Your task to perform on an android device: Add "energizer triple a" to the cart on amazon Image 0: 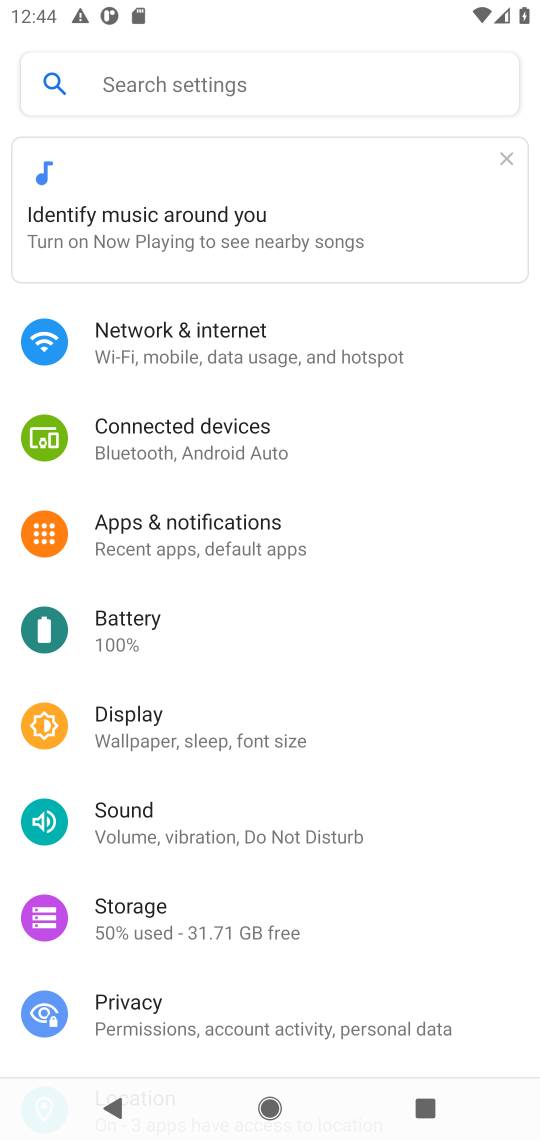
Step 0: press home button
Your task to perform on an android device: Add "energizer triple a" to the cart on amazon Image 1: 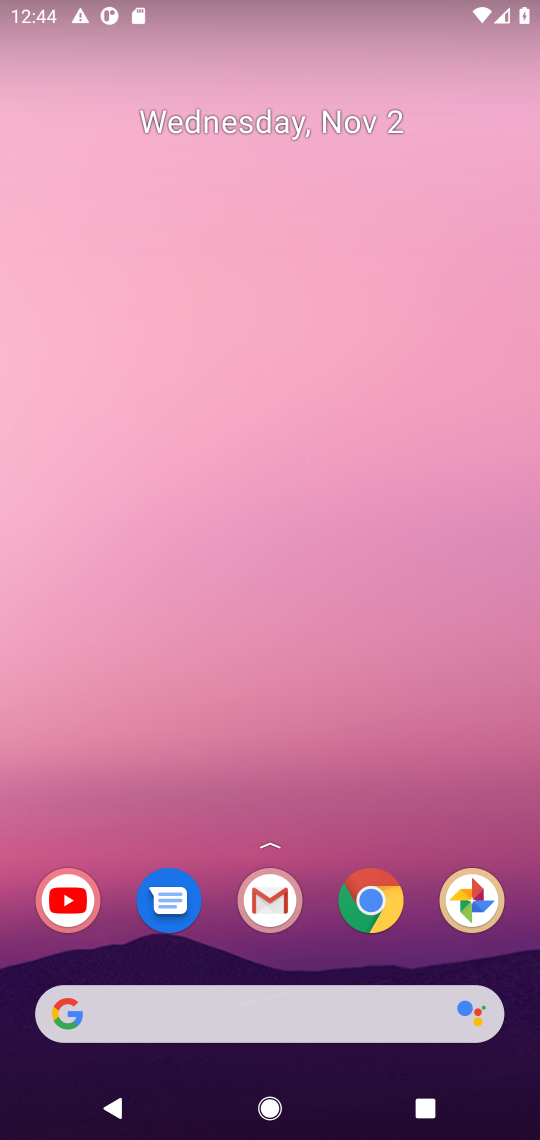
Step 1: click (358, 902)
Your task to perform on an android device: Add "energizer triple a" to the cart on amazon Image 2: 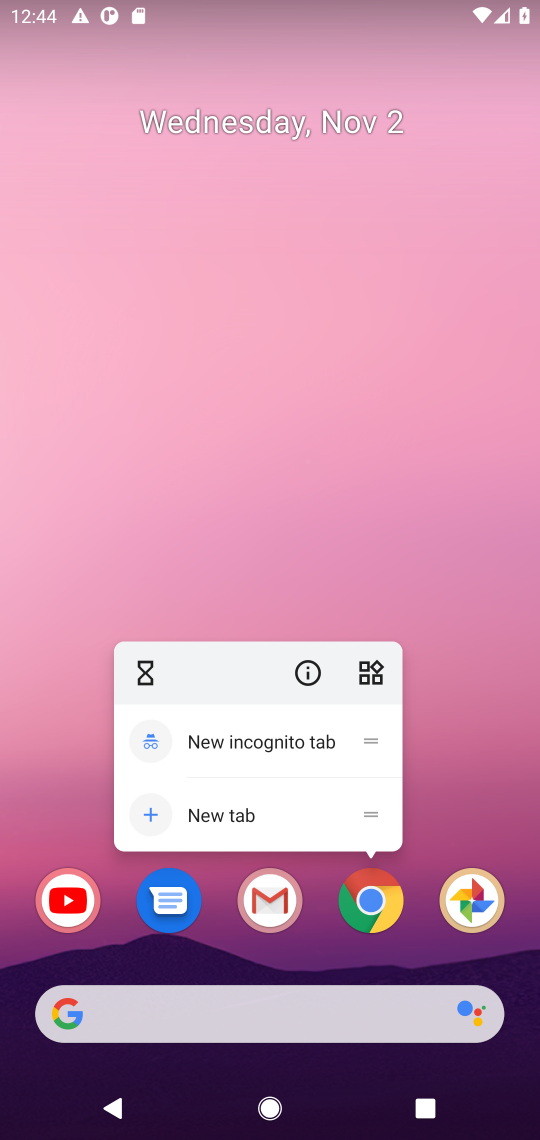
Step 2: click (381, 902)
Your task to perform on an android device: Add "energizer triple a" to the cart on amazon Image 3: 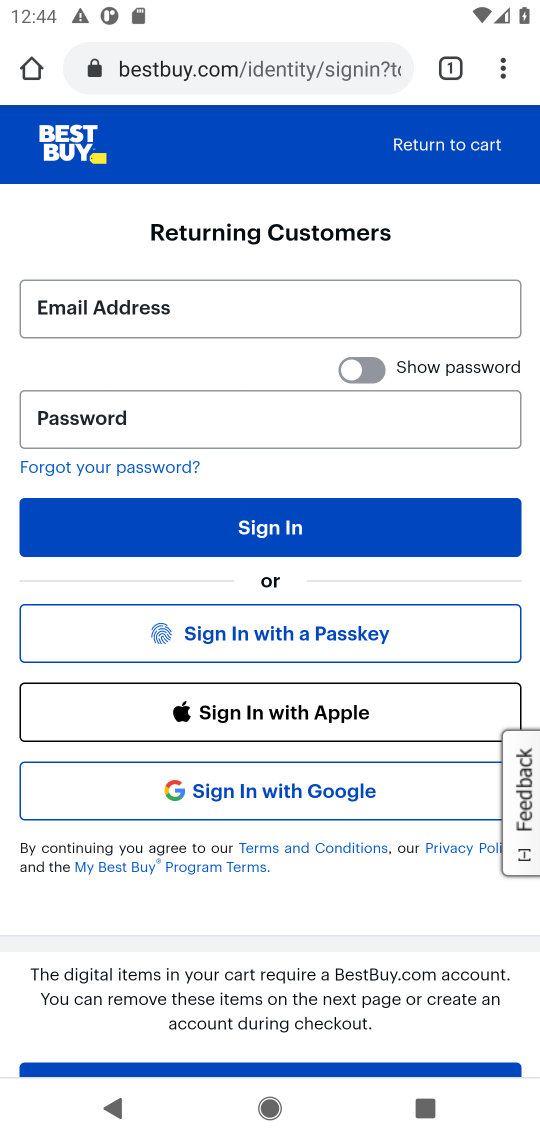
Step 3: click (178, 65)
Your task to perform on an android device: Add "energizer triple a" to the cart on amazon Image 4: 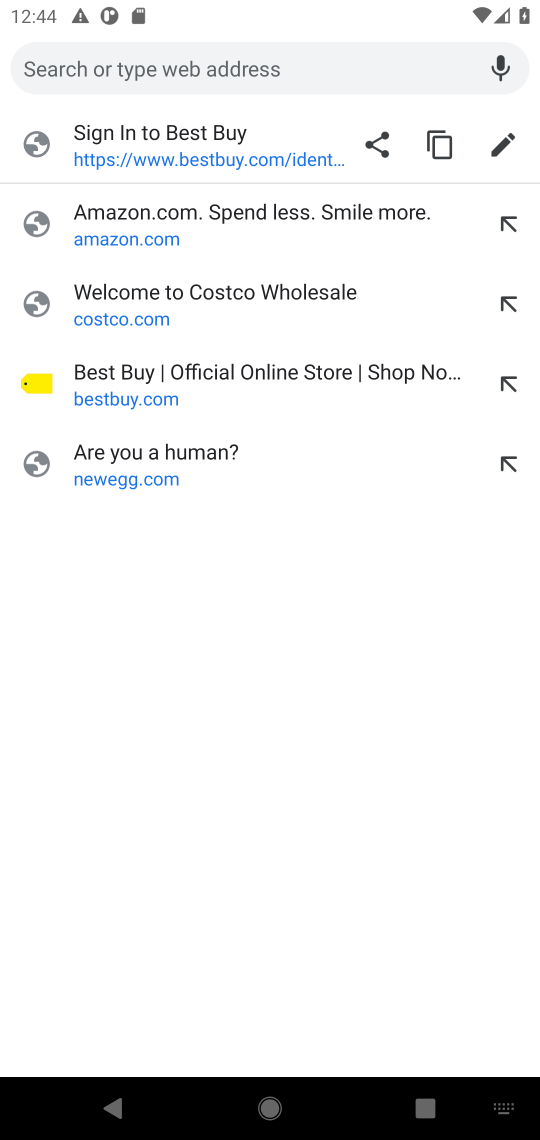
Step 4: click (118, 212)
Your task to perform on an android device: Add "energizer triple a" to the cart on amazon Image 5: 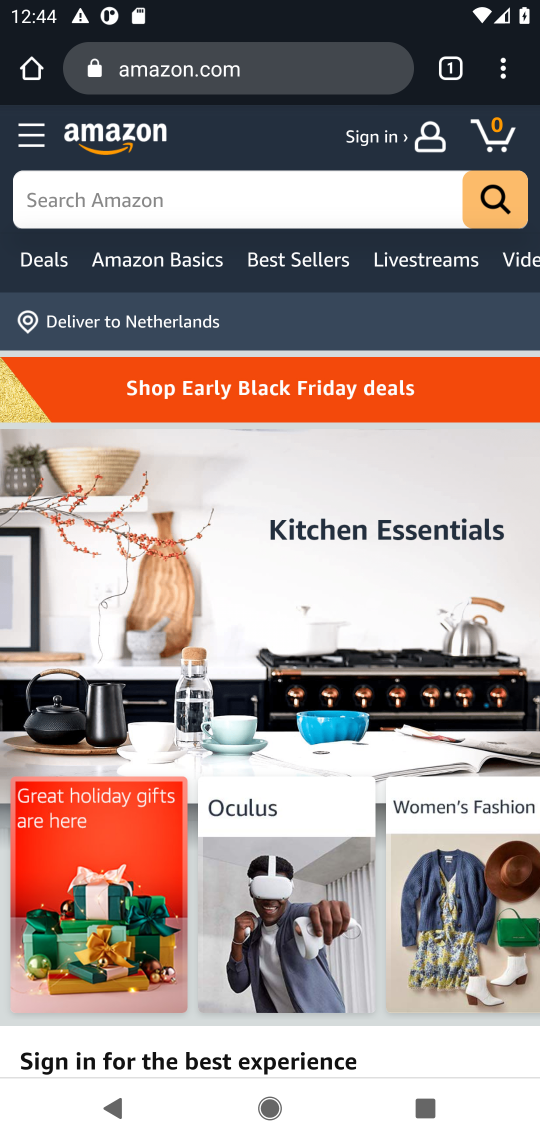
Step 5: click (278, 209)
Your task to perform on an android device: Add "energizer triple a" to the cart on amazon Image 6: 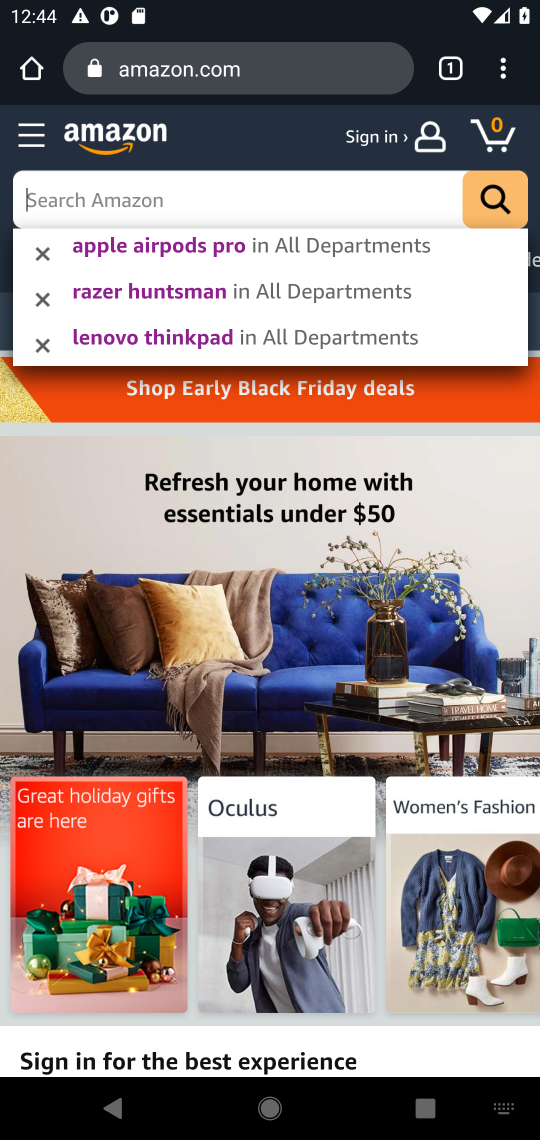
Step 6: type "nergizer triple a"
Your task to perform on an android device: Add "energizer triple a" to the cart on amazon Image 7: 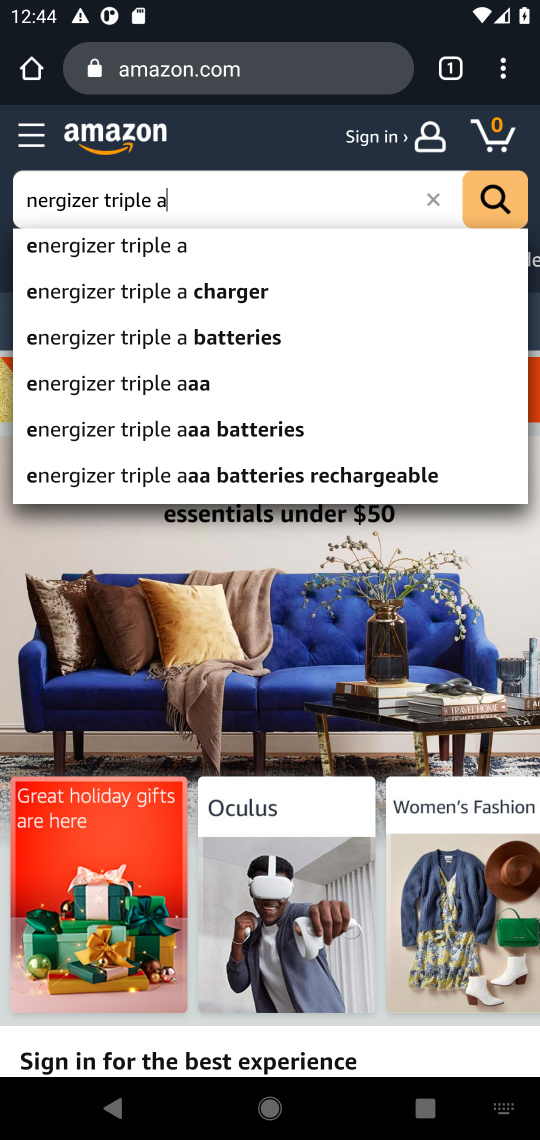
Step 7: type ""
Your task to perform on an android device: Add "energizer triple a" to the cart on amazon Image 8: 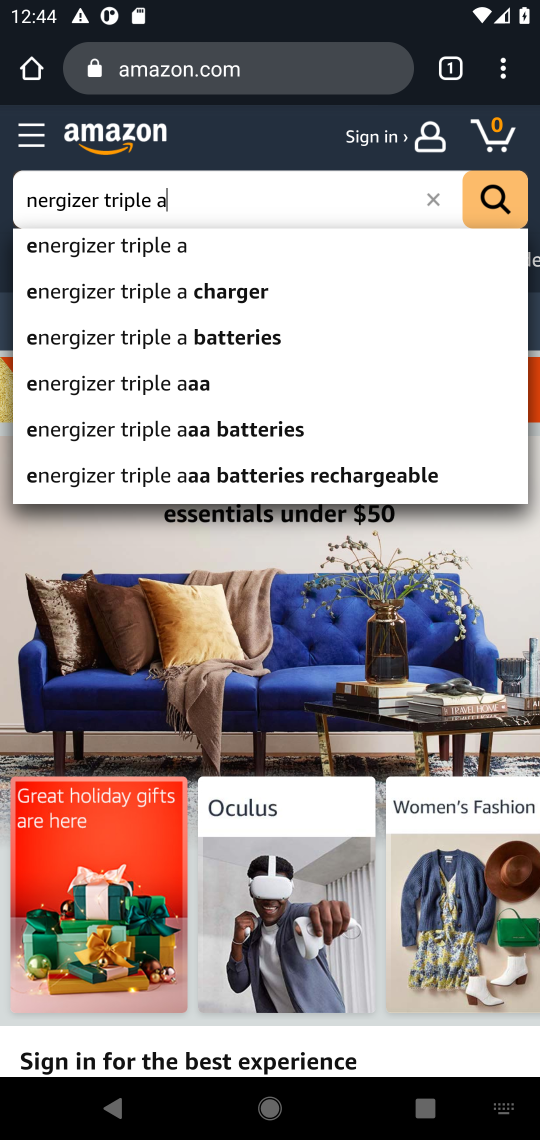
Step 8: click (484, 193)
Your task to perform on an android device: Add "energizer triple a" to the cart on amazon Image 9: 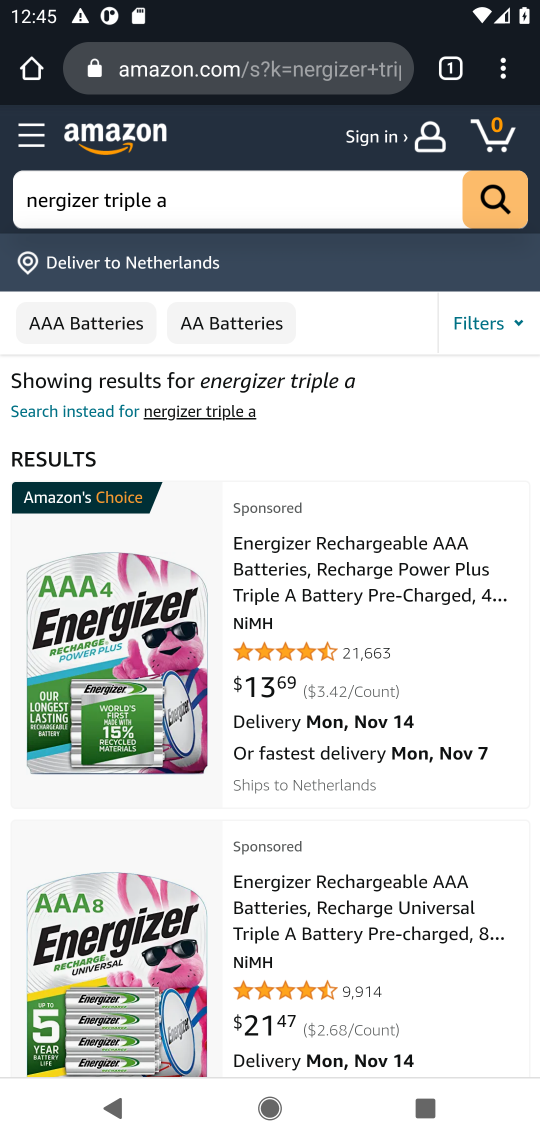
Step 9: click (280, 545)
Your task to perform on an android device: Add "energizer triple a" to the cart on amazon Image 10: 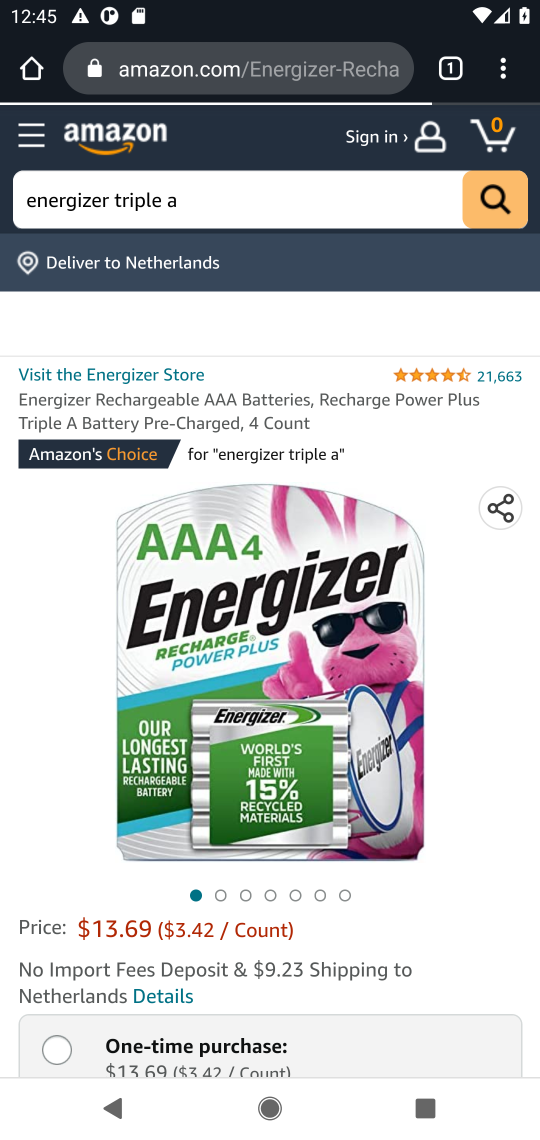
Step 10: drag from (268, 996) to (385, 404)
Your task to perform on an android device: Add "energizer triple a" to the cart on amazon Image 11: 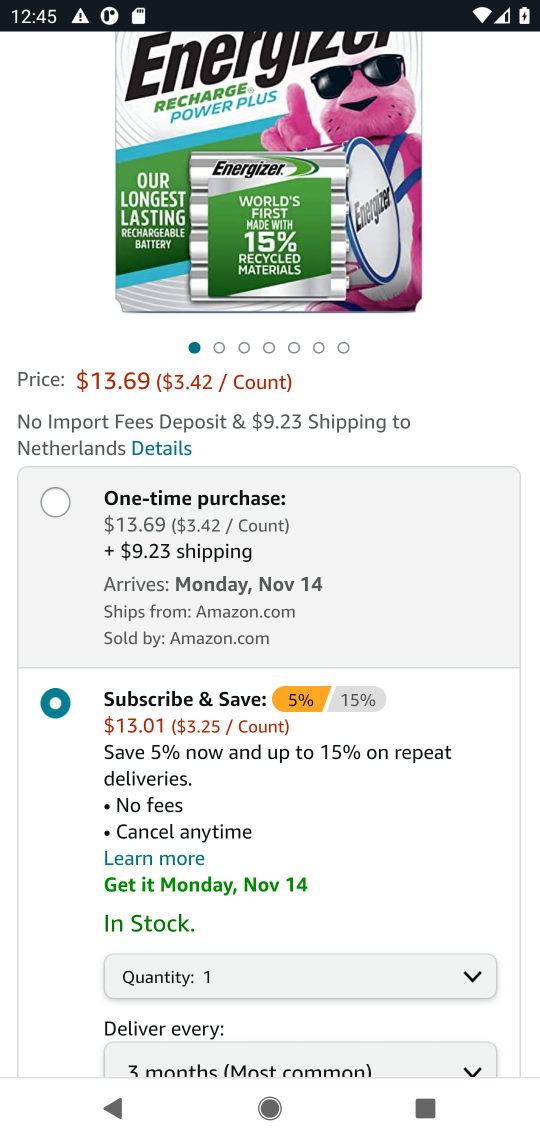
Step 11: drag from (309, 864) to (381, 284)
Your task to perform on an android device: Add "energizer triple a" to the cart on amazon Image 12: 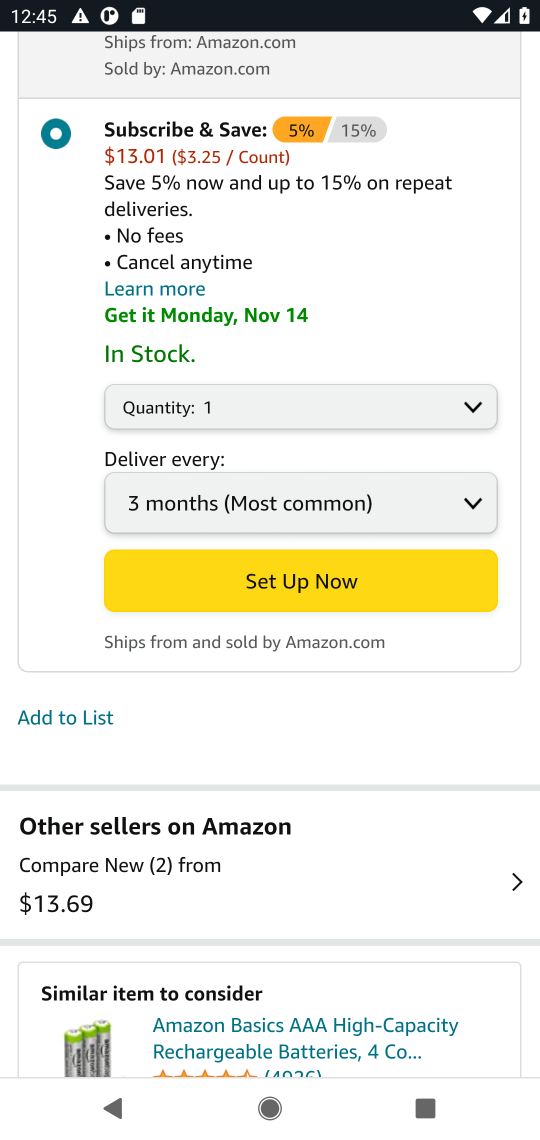
Step 12: drag from (294, 742) to (428, 297)
Your task to perform on an android device: Add "energizer triple a" to the cart on amazon Image 13: 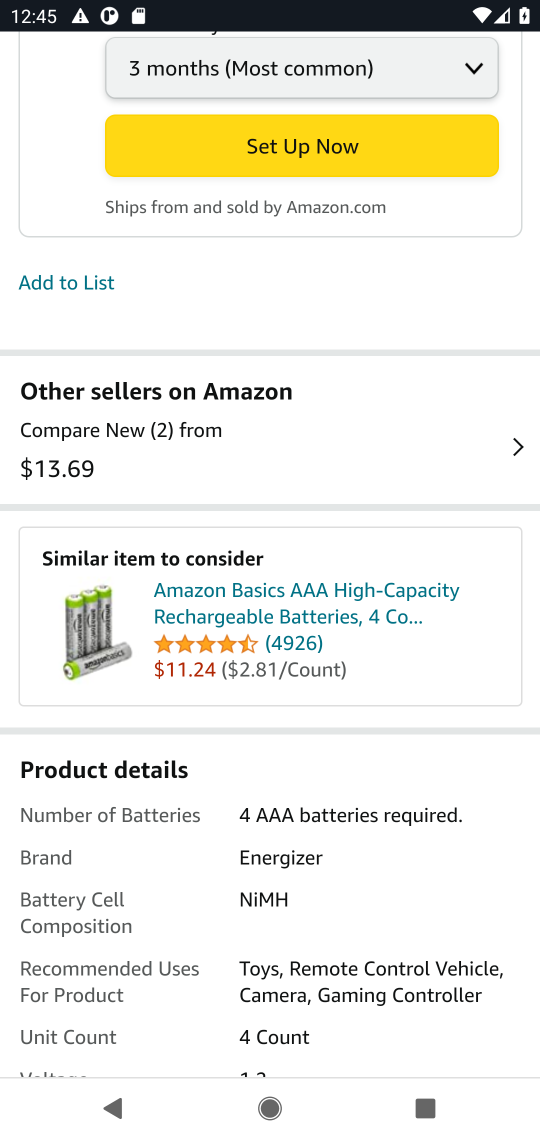
Step 13: drag from (309, 251) to (174, 715)
Your task to perform on an android device: Add "energizer triple a" to the cart on amazon Image 14: 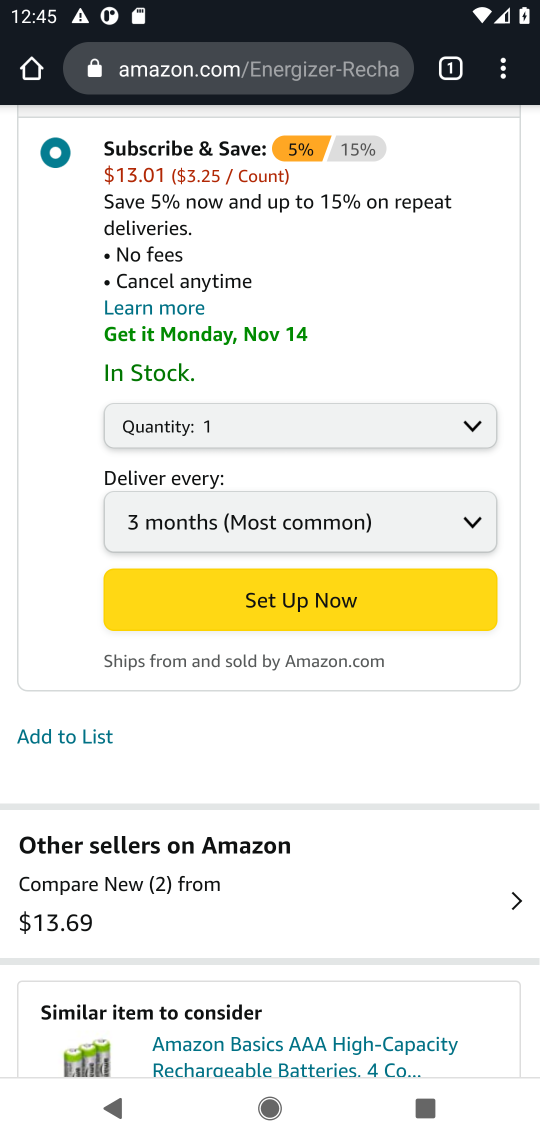
Step 14: drag from (316, 203) to (234, 655)
Your task to perform on an android device: Add "energizer triple a" to the cart on amazon Image 15: 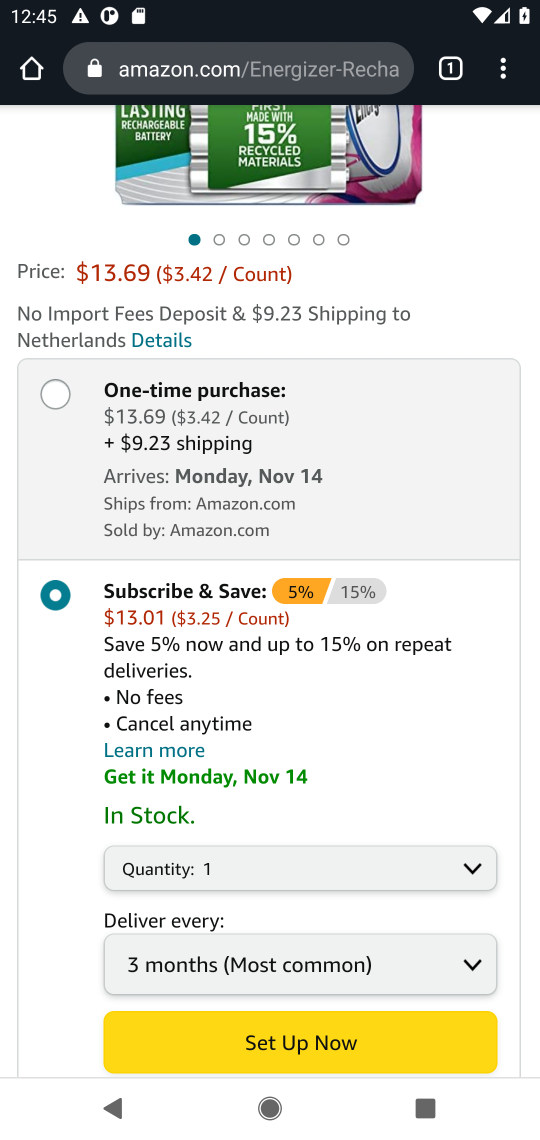
Step 15: click (42, 390)
Your task to perform on an android device: Add "energizer triple a" to the cart on amazon Image 16: 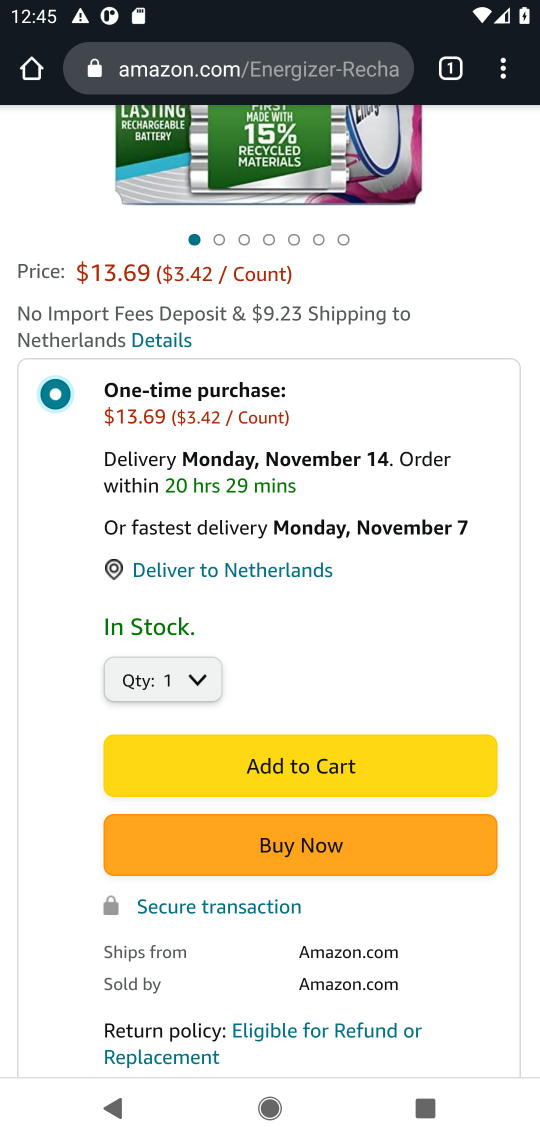
Step 16: click (397, 768)
Your task to perform on an android device: Add "energizer triple a" to the cart on amazon Image 17: 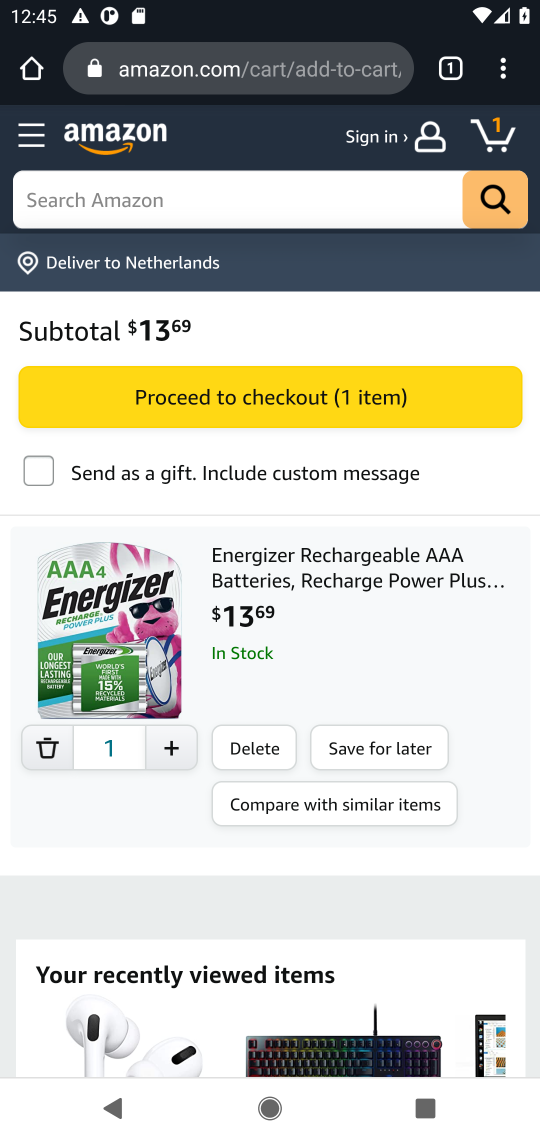
Step 17: task complete